Your task to perform on an android device: Open accessibility settings Image 0: 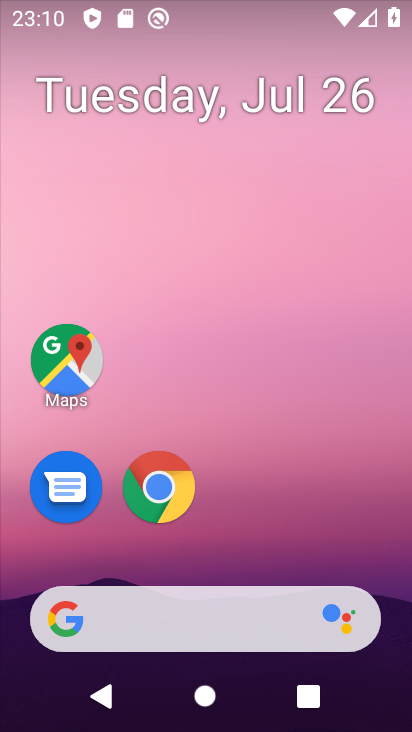
Step 0: drag from (287, 552) to (342, 3)
Your task to perform on an android device: Open accessibility settings Image 1: 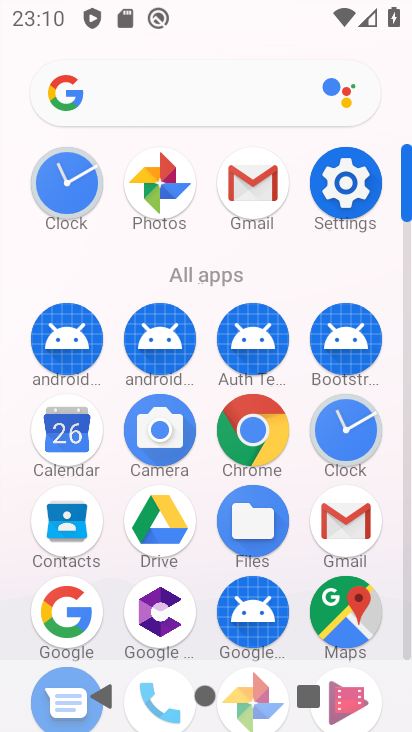
Step 1: click (345, 185)
Your task to perform on an android device: Open accessibility settings Image 2: 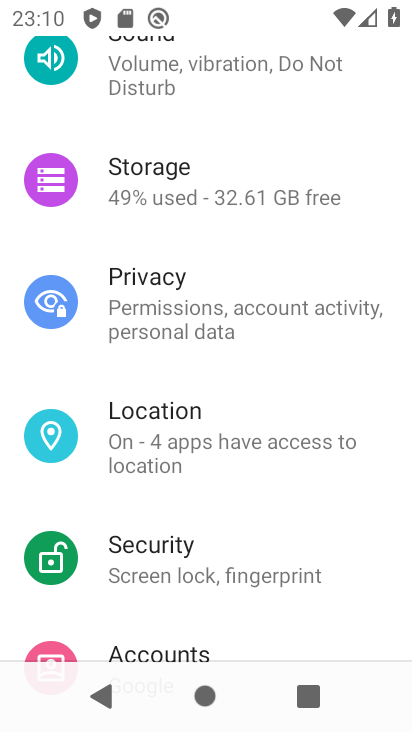
Step 2: drag from (194, 615) to (305, 49)
Your task to perform on an android device: Open accessibility settings Image 3: 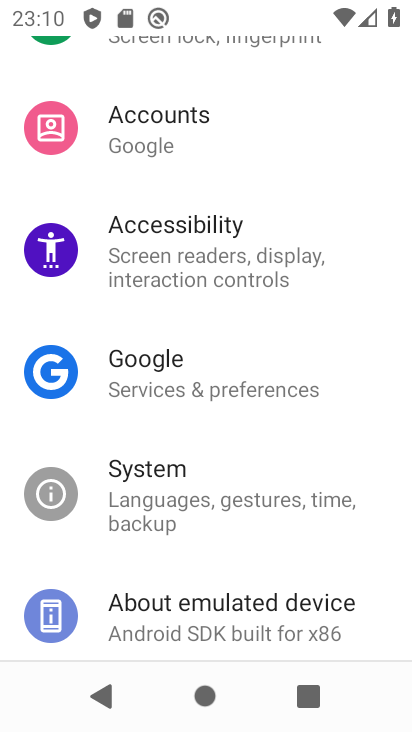
Step 3: click (190, 249)
Your task to perform on an android device: Open accessibility settings Image 4: 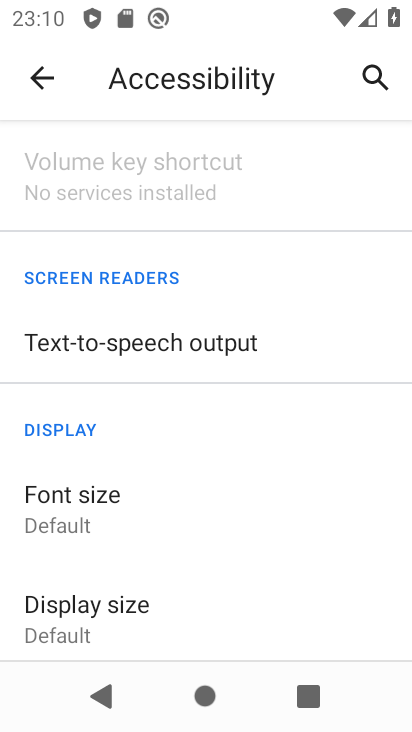
Step 4: task complete